Your task to perform on an android device: Go to ESPN.com Image 0: 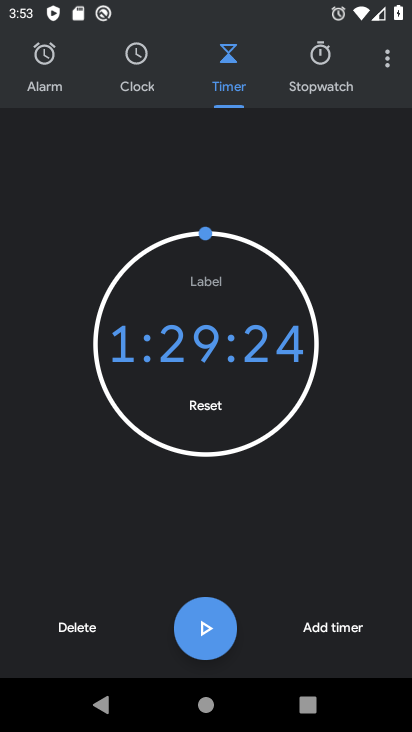
Step 0: press back button
Your task to perform on an android device: Go to ESPN.com Image 1: 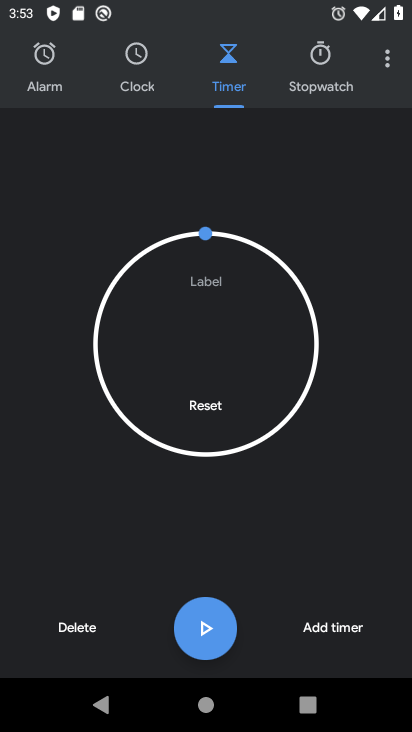
Step 1: press back button
Your task to perform on an android device: Go to ESPN.com Image 2: 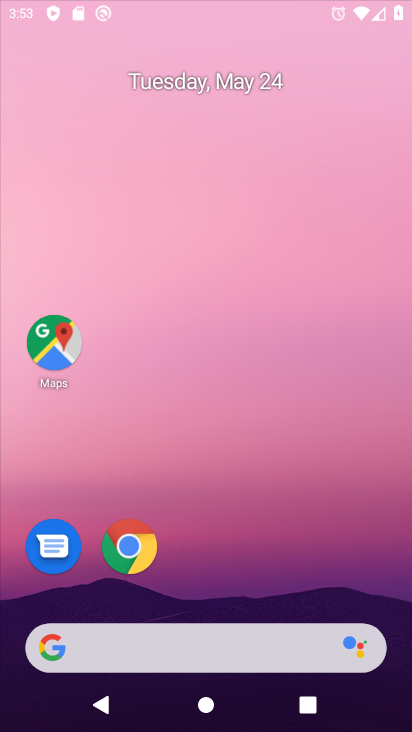
Step 2: press back button
Your task to perform on an android device: Go to ESPN.com Image 3: 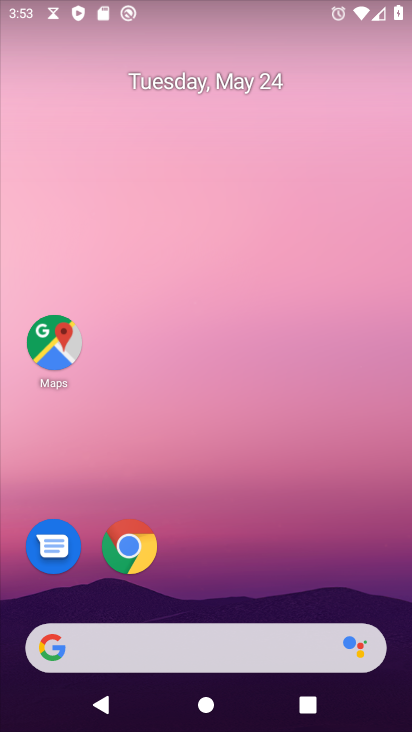
Step 3: drag from (211, 569) to (70, 7)
Your task to perform on an android device: Go to ESPN.com Image 4: 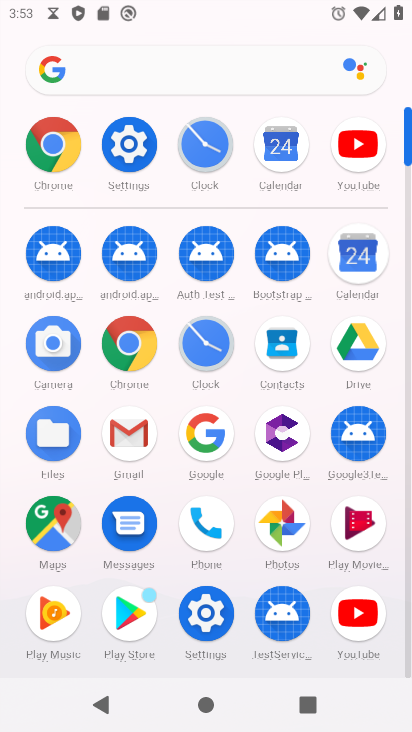
Step 4: click (132, 94)
Your task to perform on an android device: Go to ESPN.com Image 5: 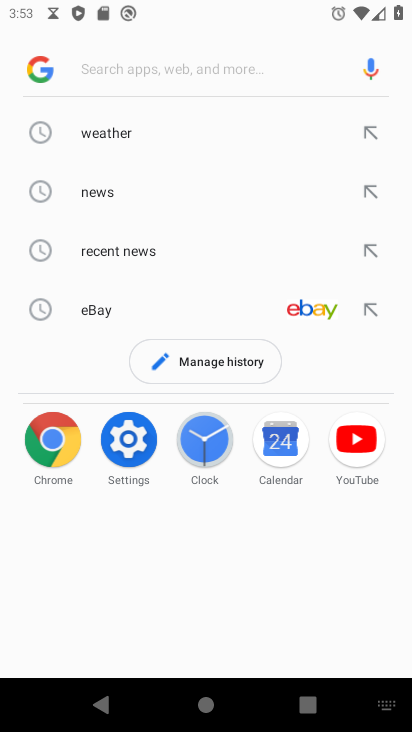
Step 5: press back button
Your task to perform on an android device: Go to ESPN.com Image 6: 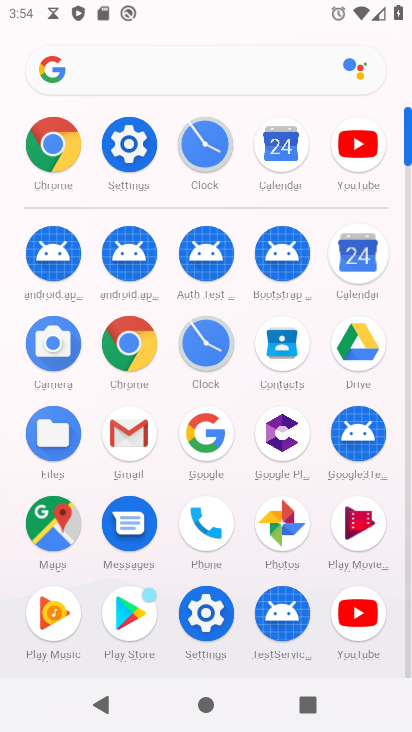
Step 6: click (126, 343)
Your task to perform on an android device: Go to ESPN.com Image 7: 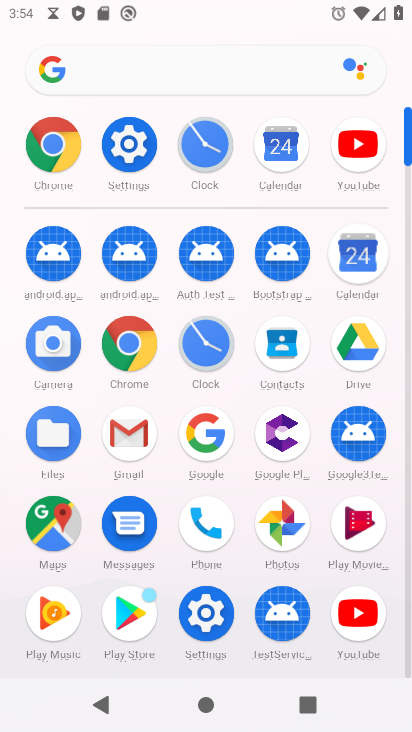
Step 7: click (126, 343)
Your task to perform on an android device: Go to ESPN.com Image 8: 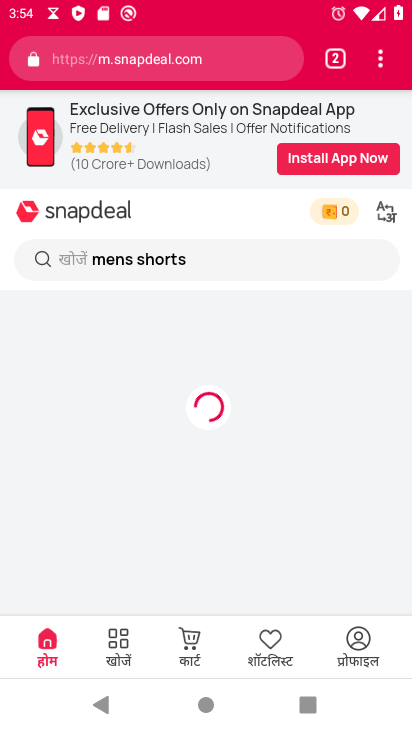
Step 8: drag from (379, 57) to (156, 111)
Your task to perform on an android device: Go to ESPN.com Image 9: 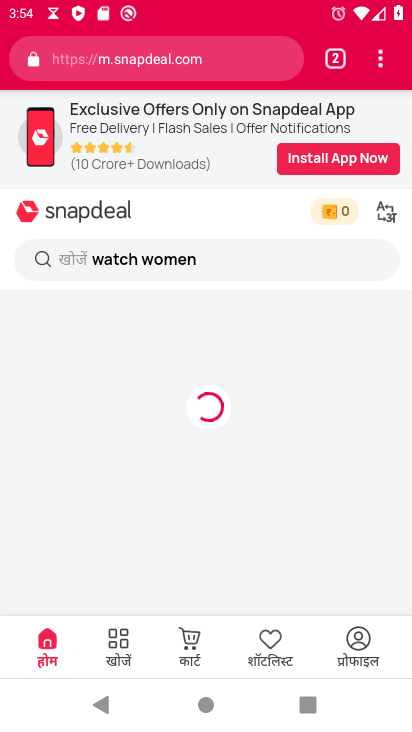
Step 9: click (156, 111)
Your task to perform on an android device: Go to ESPN.com Image 10: 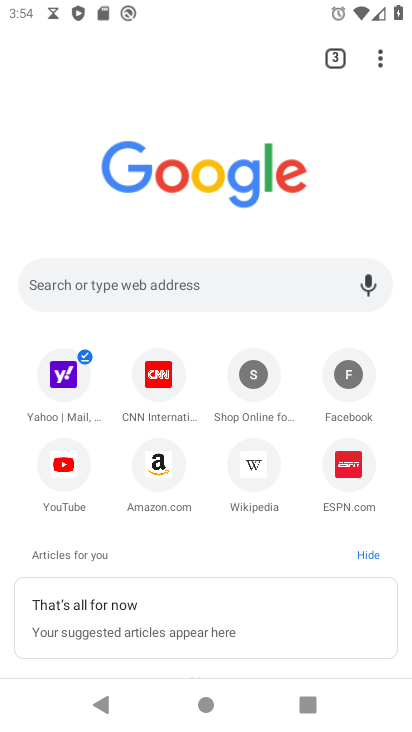
Step 10: click (346, 468)
Your task to perform on an android device: Go to ESPN.com Image 11: 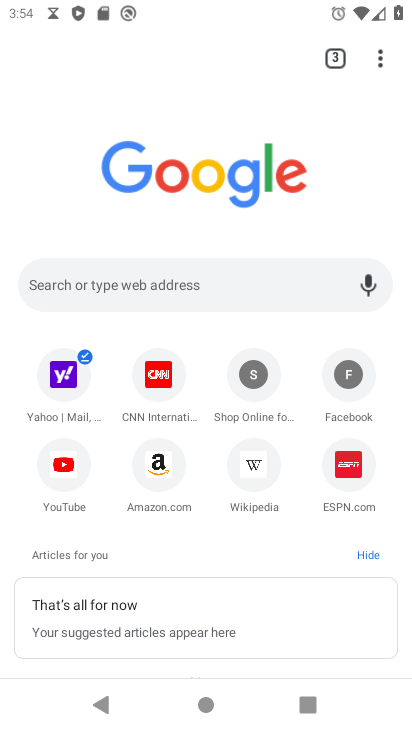
Step 11: click (347, 467)
Your task to perform on an android device: Go to ESPN.com Image 12: 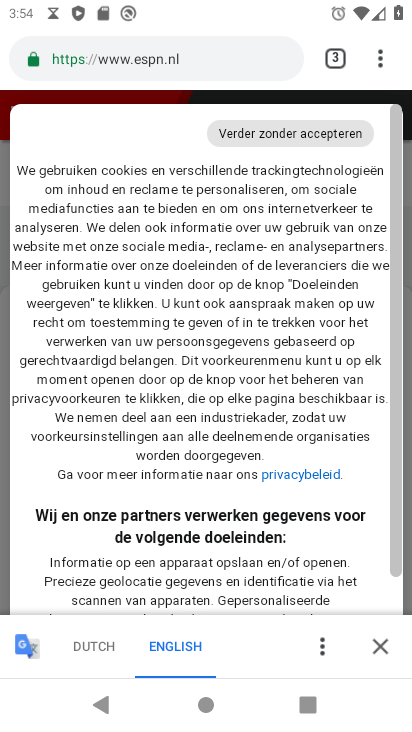
Step 12: task complete